Your task to perform on an android device: Open calendar and show me the third week of next month Image 0: 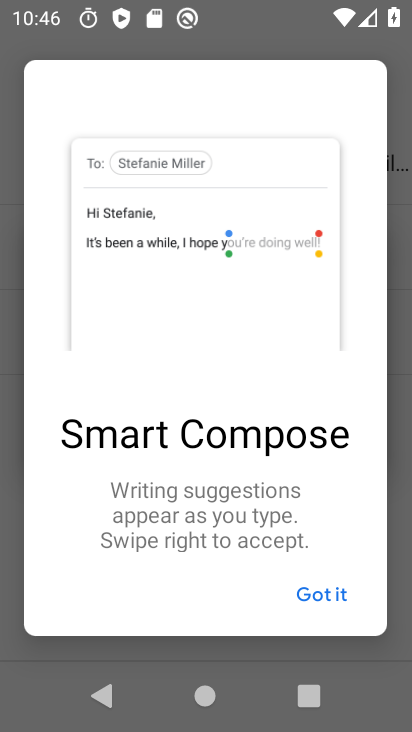
Step 0: press home button
Your task to perform on an android device: Open calendar and show me the third week of next month Image 1: 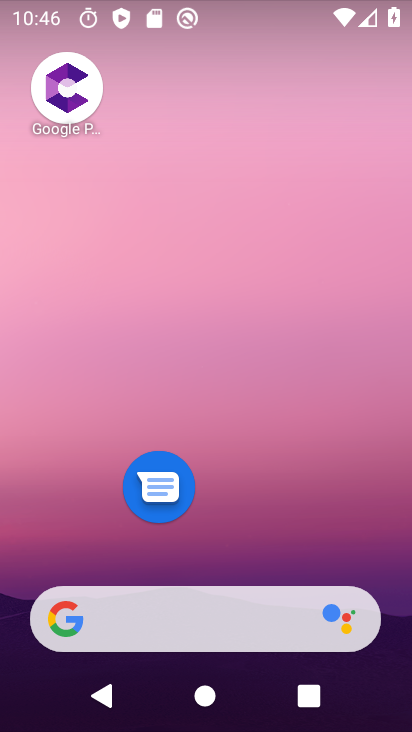
Step 1: drag from (236, 545) to (198, 106)
Your task to perform on an android device: Open calendar and show me the third week of next month Image 2: 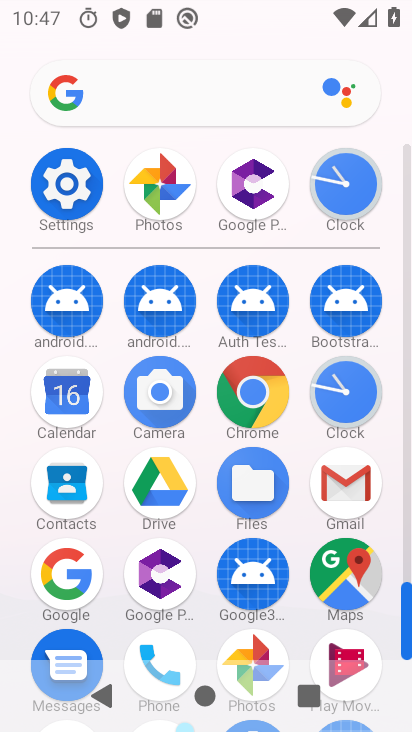
Step 2: click (66, 408)
Your task to perform on an android device: Open calendar and show me the third week of next month Image 3: 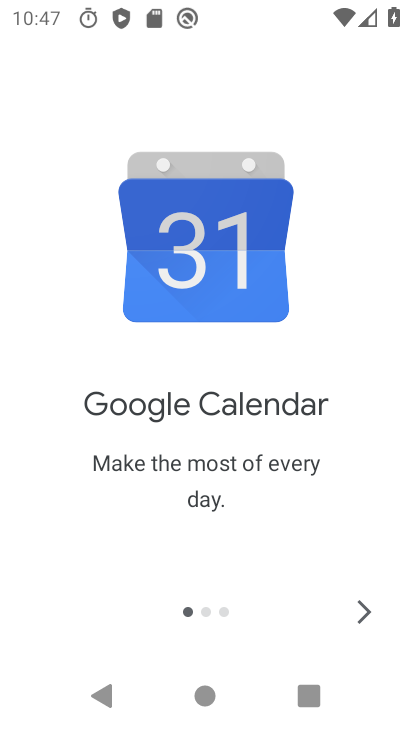
Step 3: click (366, 612)
Your task to perform on an android device: Open calendar and show me the third week of next month Image 4: 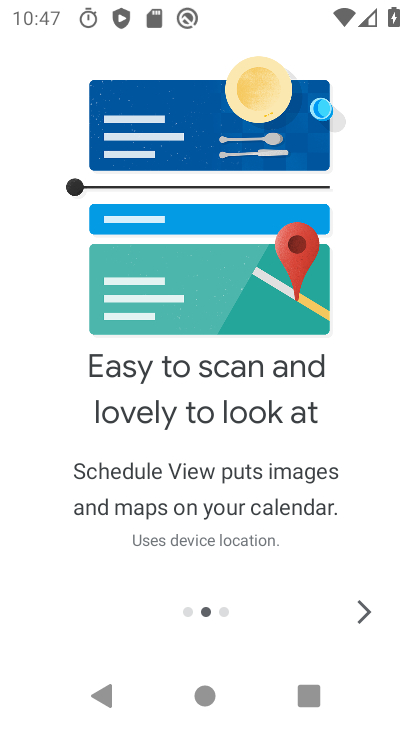
Step 4: click (366, 612)
Your task to perform on an android device: Open calendar and show me the third week of next month Image 5: 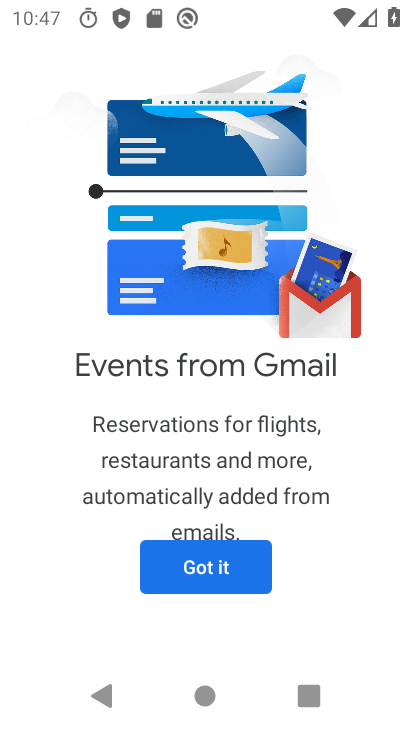
Step 5: click (366, 612)
Your task to perform on an android device: Open calendar and show me the third week of next month Image 6: 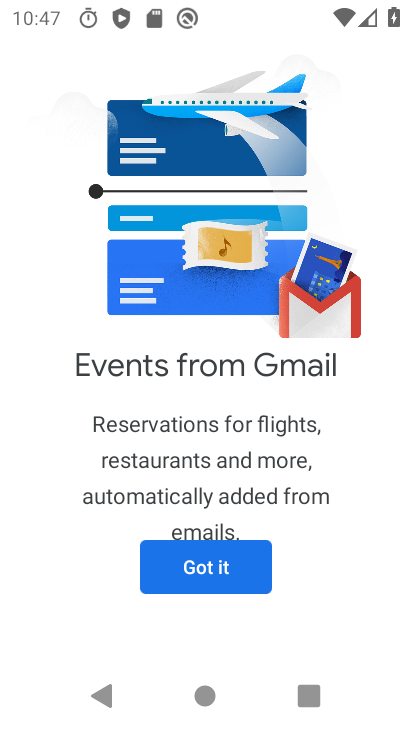
Step 6: click (220, 574)
Your task to perform on an android device: Open calendar and show me the third week of next month Image 7: 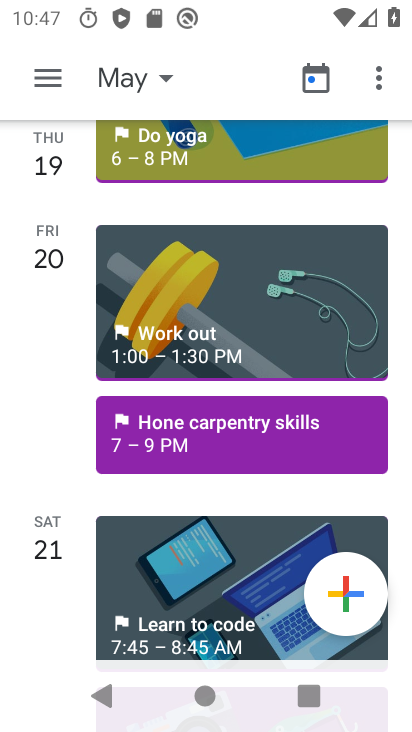
Step 7: click (46, 84)
Your task to perform on an android device: Open calendar and show me the third week of next month Image 8: 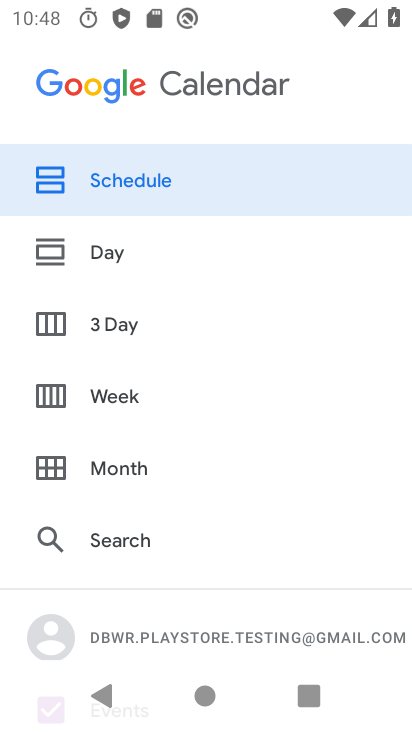
Step 8: click (118, 412)
Your task to perform on an android device: Open calendar and show me the third week of next month Image 9: 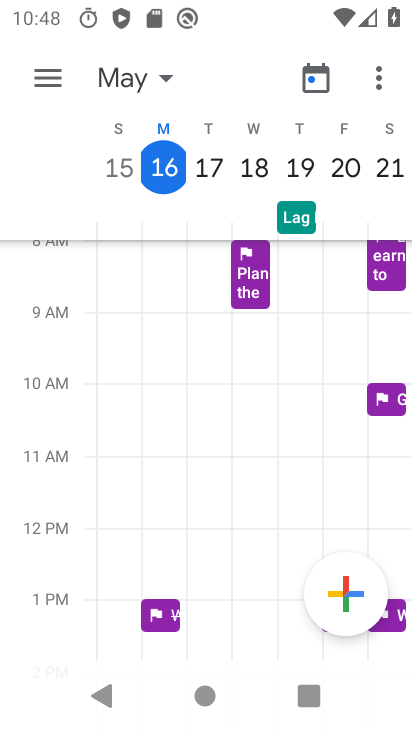
Step 9: click (121, 85)
Your task to perform on an android device: Open calendar and show me the third week of next month Image 10: 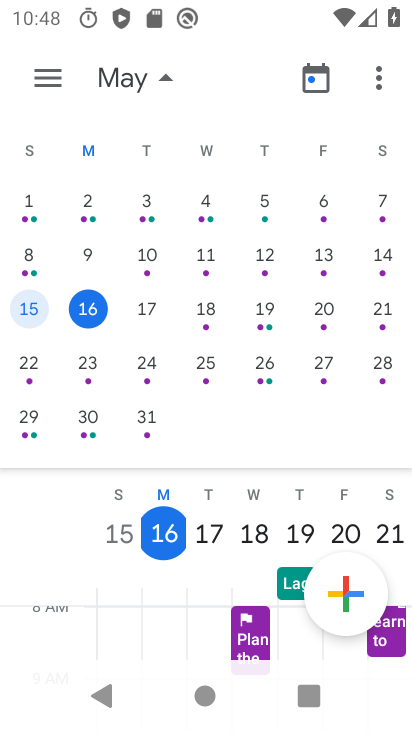
Step 10: drag from (298, 268) to (65, 300)
Your task to perform on an android device: Open calendar and show me the third week of next month Image 11: 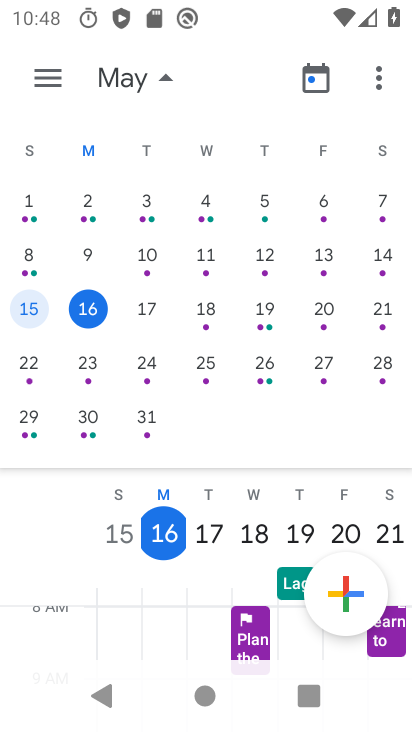
Step 11: drag from (332, 288) to (50, 297)
Your task to perform on an android device: Open calendar and show me the third week of next month Image 12: 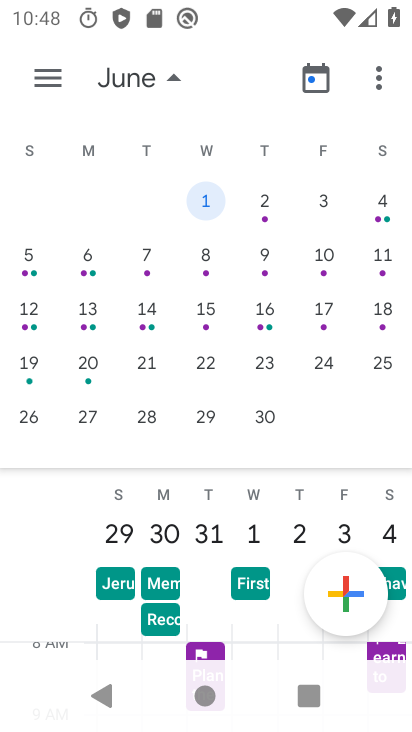
Step 12: click (27, 318)
Your task to perform on an android device: Open calendar and show me the third week of next month Image 13: 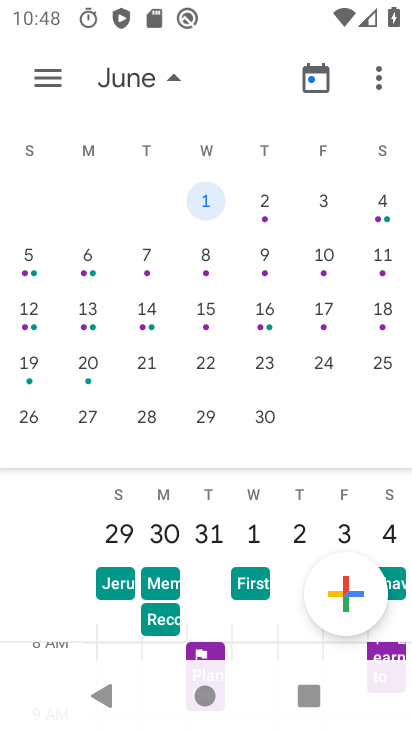
Step 13: click (33, 321)
Your task to perform on an android device: Open calendar and show me the third week of next month Image 14: 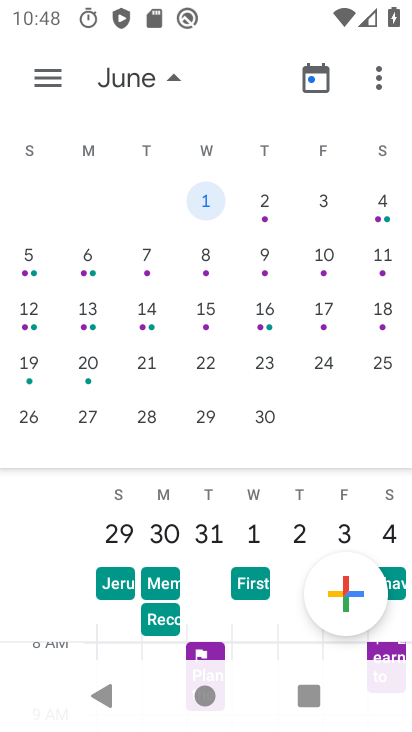
Step 14: click (30, 323)
Your task to perform on an android device: Open calendar and show me the third week of next month Image 15: 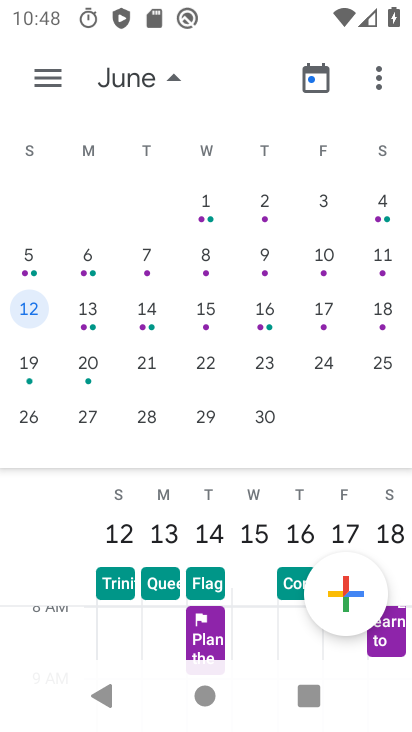
Step 15: task complete